Your task to perform on an android device: Check the weather Image 0: 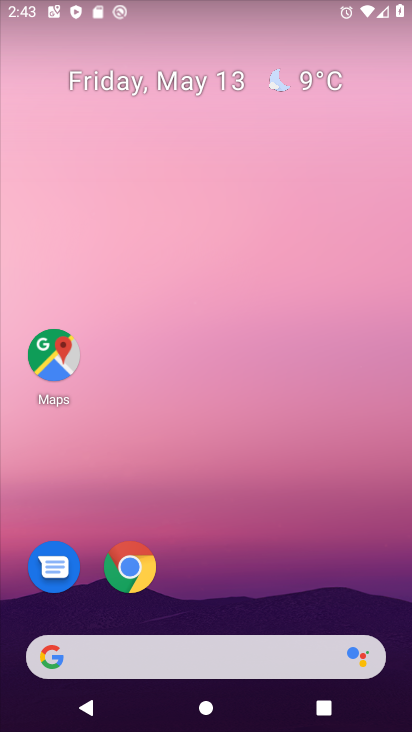
Step 0: drag from (213, 522) to (270, 65)
Your task to perform on an android device: Check the weather Image 1: 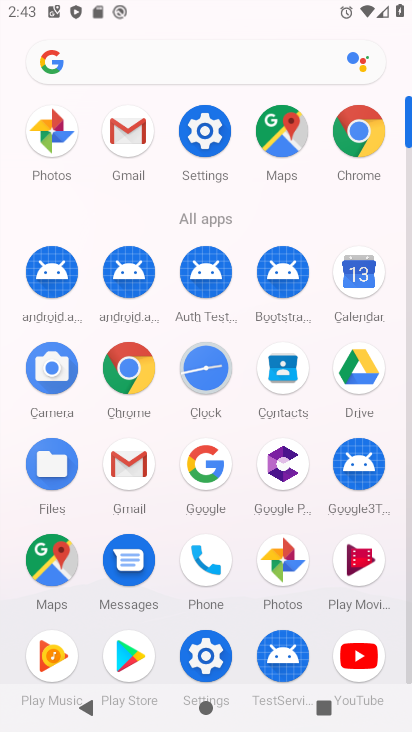
Step 1: click (200, 62)
Your task to perform on an android device: Check the weather Image 2: 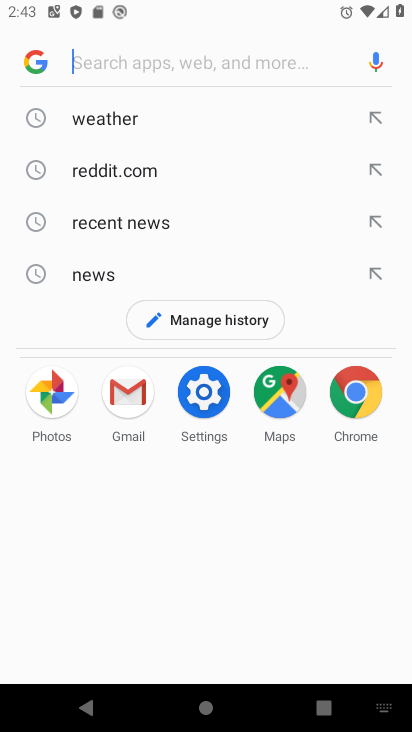
Step 2: click (107, 109)
Your task to perform on an android device: Check the weather Image 3: 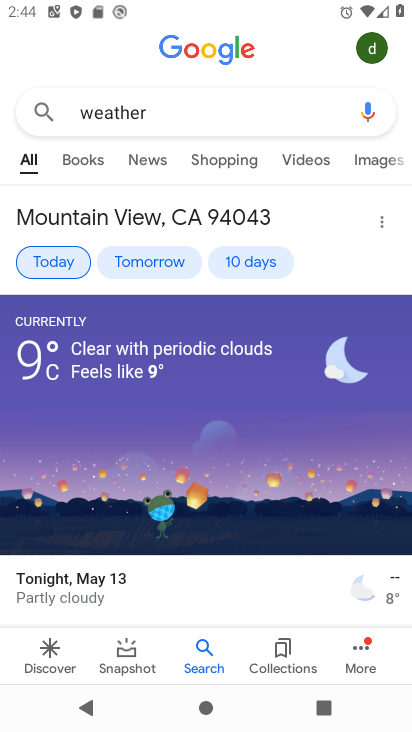
Step 3: task complete